Your task to perform on an android device: Empty the shopping cart on bestbuy. Search for "macbook" on bestbuy, select the first entry, add it to the cart, then select checkout. Image 0: 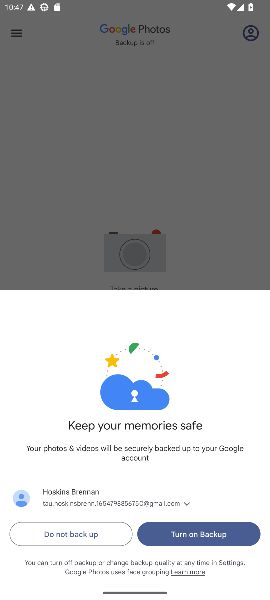
Step 0: press home button
Your task to perform on an android device: Empty the shopping cart on bestbuy. Search for "macbook" on bestbuy, select the first entry, add it to the cart, then select checkout. Image 1: 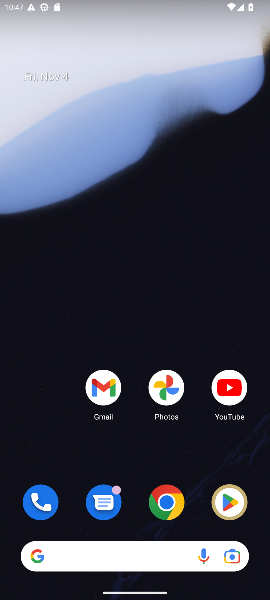
Step 1: drag from (130, 464) to (86, 4)
Your task to perform on an android device: Empty the shopping cart on bestbuy. Search for "macbook" on bestbuy, select the first entry, add it to the cart, then select checkout. Image 2: 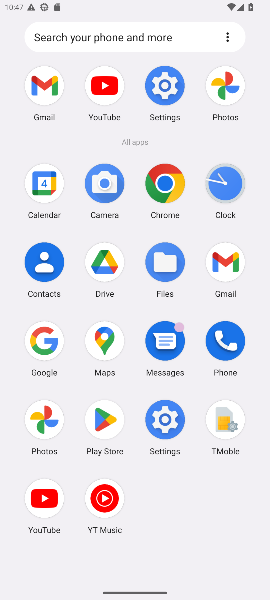
Step 2: click (165, 188)
Your task to perform on an android device: Empty the shopping cart on bestbuy. Search for "macbook" on bestbuy, select the first entry, add it to the cart, then select checkout. Image 3: 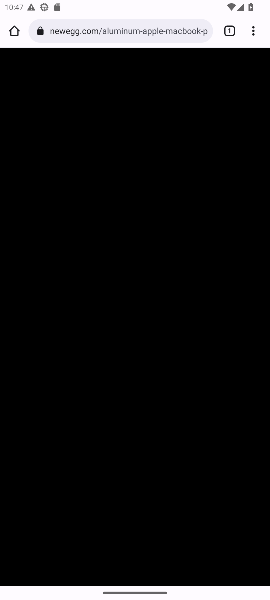
Step 3: click (117, 29)
Your task to perform on an android device: Empty the shopping cart on bestbuy. Search for "macbook" on bestbuy, select the first entry, add it to the cart, then select checkout. Image 4: 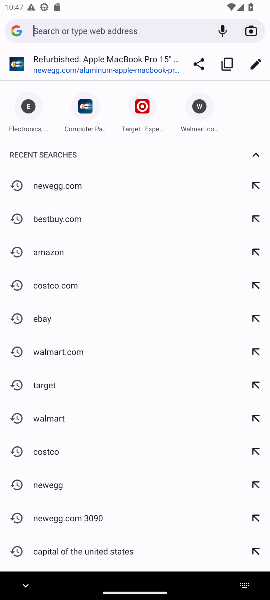
Step 4: type "bestbuy.com"
Your task to perform on an android device: Empty the shopping cart on bestbuy. Search for "macbook" on bestbuy, select the first entry, add it to the cart, then select checkout. Image 5: 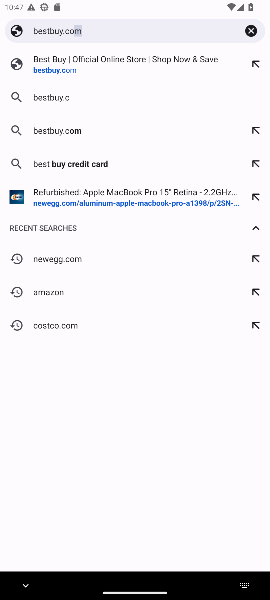
Step 5: press enter
Your task to perform on an android device: Empty the shopping cart on bestbuy. Search for "macbook" on bestbuy, select the first entry, add it to the cart, then select checkout. Image 6: 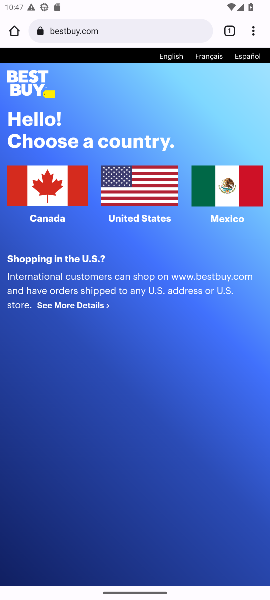
Step 6: click (45, 182)
Your task to perform on an android device: Empty the shopping cart on bestbuy. Search for "macbook" on bestbuy, select the first entry, add it to the cart, then select checkout. Image 7: 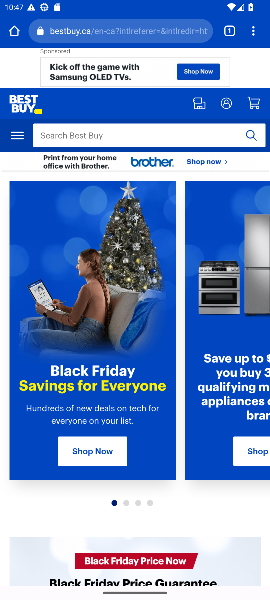
Step 7: click (260, 100)
Your task to perform on an android device: Empty the shopping cart on bestbuy. Search for "macbook" on bestbuy, select the first entry, add it to the cart, then select checkout. Image 8: 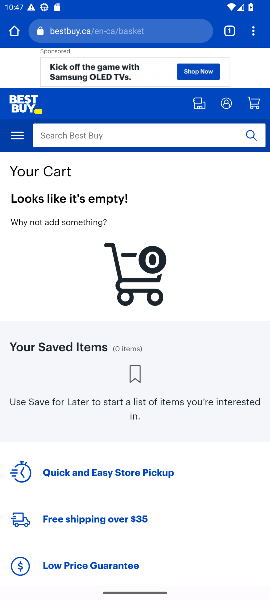
Step 8: click (125, 134)
Your task to perform on an android device: Empty the shopping cart on bestbuy. Search for "macbook" on bestbuy, select the first entry, add it to the cart, then select checkout. Image 9: 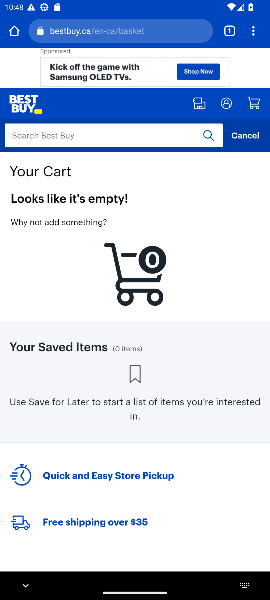
Step 9: type "macbook"
Your task to perform on an android device: Empty the shopping cart on bestbuy. Search for "macbook" on bestbuy, select the first entry, add it to the cart, then select checkout. Image 10: 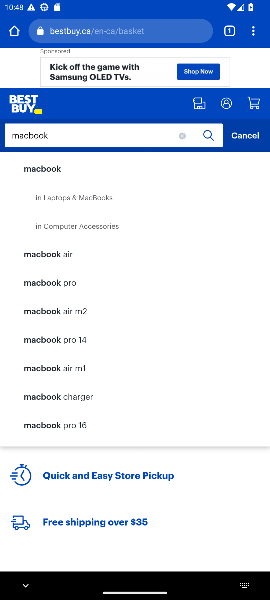
Step 10: press enter
Your task to perform on an android device: Empty the shopping cart on bestbuy. Search for "macbook" on bestbuy, select the first entry, add it to the cart, then select checkout. Image 11: 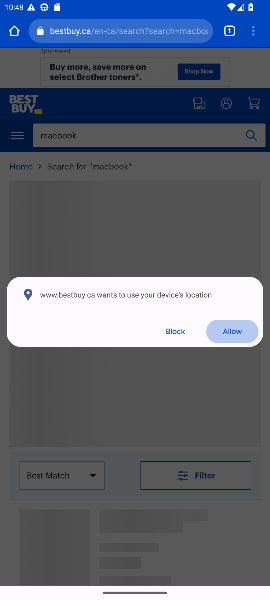
Step 11: click (166, 330)
Your task to perform on an android device: Empty the shopping cart on bestbuy. Search for "macbook" on bestbuy, select the first entry, add it to the cart, then select checkout. Image 12: 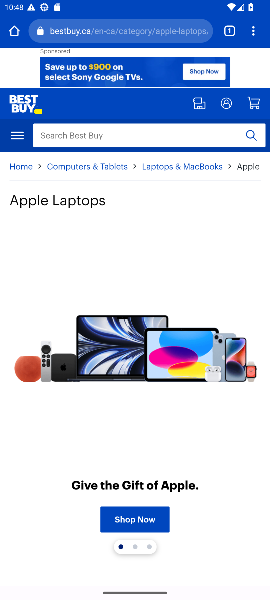
Step 12: drag from (153, 465) to (167, 143)
Your task to perform on an android device: Empty the shopping cart on bestbuy. Search for "macbook" on bestbuy, select the first entry, add it to the cart, then select checkout. Image 13: 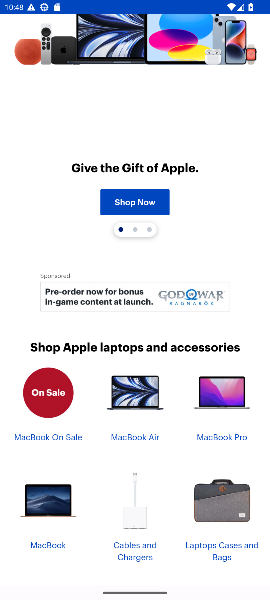
Step 13: drag from (192, 364) to (210, 113)
Your task to perform on an android device: Empty the shopping cart on bestbuy. Search for "macbook" on bestbuy, select the first entry, add it to the cart, then select checkout. Image 14: 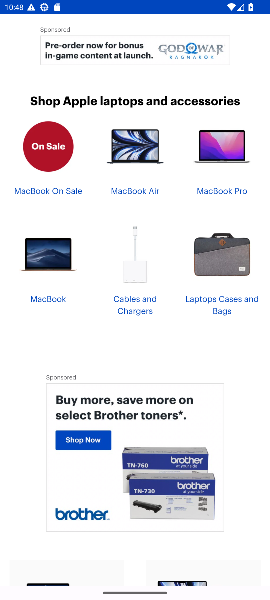
Step 14: drag from (133, 422) to (177, 114)
Your task to perform on an android device: Empty the shopping cart on bestbuy. Search for "macbook" on bestbuy, select the first entry, add it to the cart, then select checkout. Image 15: 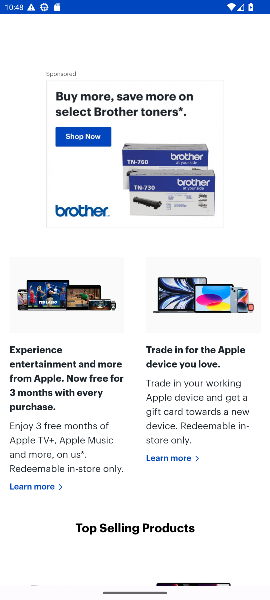
Step 15: drag from (123, 395) to (154, 116)
Your task to perform on an android device: Empty the shopping cart on bestbuy. Search for "macbook" on bestbuy, select the first entry, add it to the cart, then select checkout. Image 16: 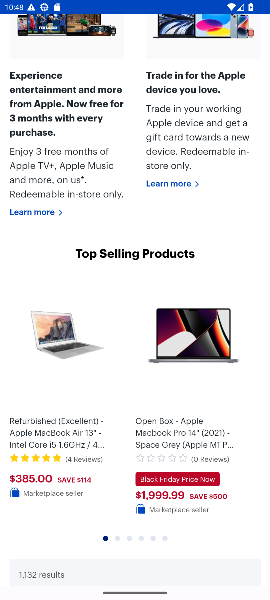
Step 16: click (61, 457)
Your task to perform on an android device: Empty the shopping cart on bestbuy. Search for "macbook" on bestbuy, select the first entry, add it to the cart, then select checkout. Image 17: 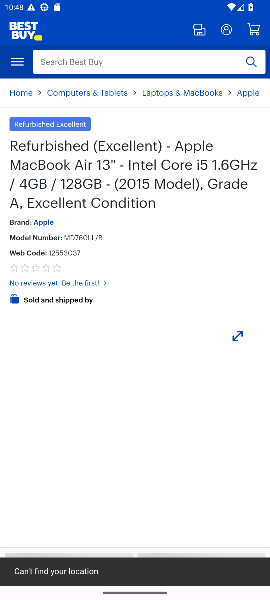
Step 17: drag from (165, 445) to (167, 124)
Your task to perform on an android device: Empty the shopping cart on bestbuy. Search for "macbook" on bestbuy, select the first entry, add it to the cart, then select checkout. Image 18: 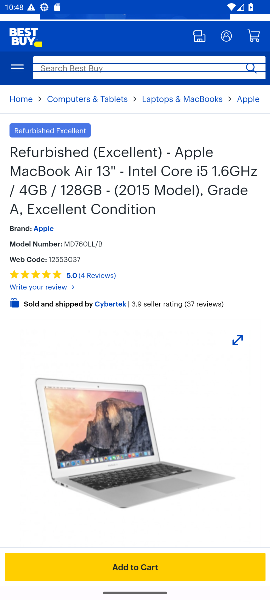
Step 18: drag from (161, 357) to (168, 135)
Your task to perform on an android device: Empty the shopping cart on bestbuy. Search for "macbook" on bestbuy, select the first entry, add it to the cart, then select checkout. Image 19: 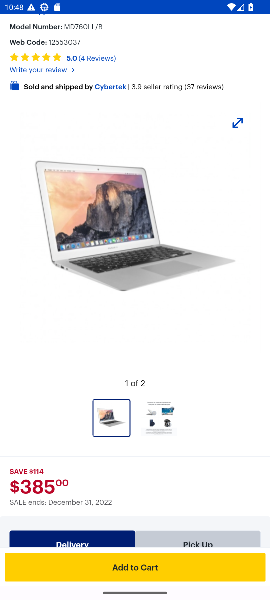
Step 19: click (186, 577)
Your task to perform on an android device: Empty the shopping cart on bestbuy. Search for "macbook" on bestbuy, select the first entry, add it to the cart, then select checkout. Image 20: 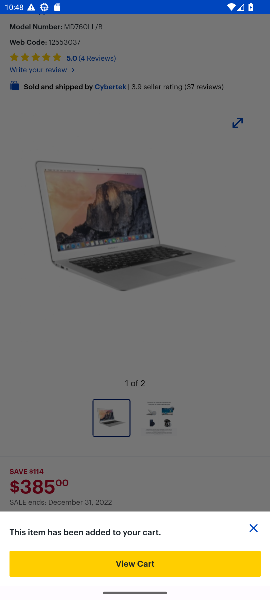
Step 20: click (186, 565)
Your task to perform on an android device: Empty the shopping cart on bestbuy. Search for "macbook" on bestbuy, select the first entry, add it to the cart, then select checkout. Image 21: 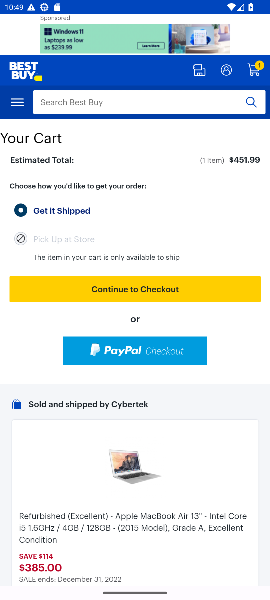
Step 21: click (156, 282)
Your task to perform on an android device: Empty the shopping cart on bestbuy. Search for "macbook" on bestbuy, select the first entry, add it to the cart, then select checkout. Image 22: 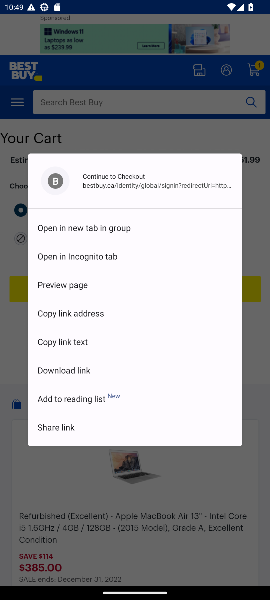
Step 22: click (254, 232)
Your task to perform on an android device: Empty the shopping cart on bestbuy. Search for "macbook" on bestbuy, select the first entry, add it to the cart, then select checkout. Image 23: 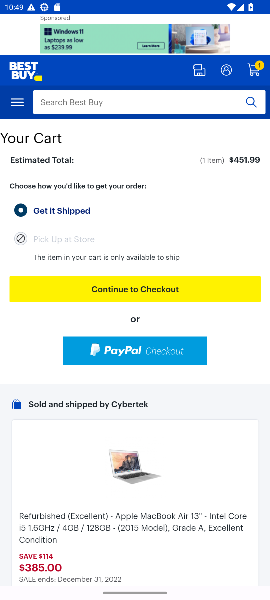
Step 23: click (172, 296)
Your task to perform on an android device: Empty the shopping cart on bestbuy. Search for "macbook" on bestbuy, select the first entry, add it to the cart, then select checkout. Image 24: 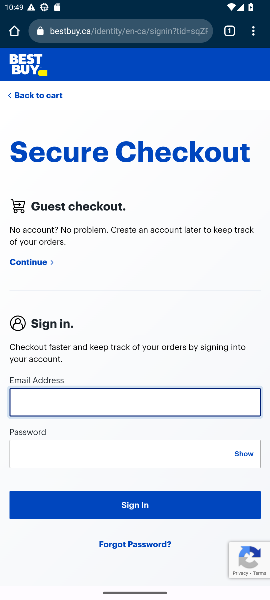
Step 24: task complete